Your task to perform on an android device: Go to Yahoo.com Image 0: 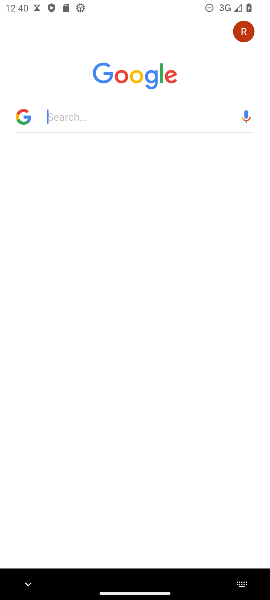
Step 0: press back button
Your task to perform on an android device: Go to Yahoo.com Image 1: 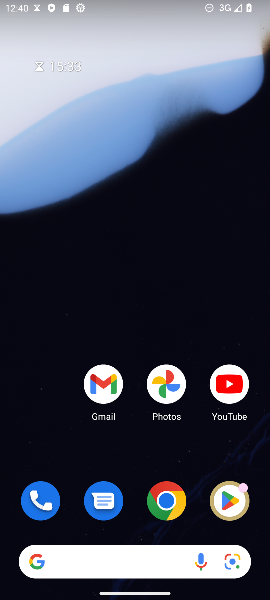
Step 1: click (169, 507)
Your task to perform on an android device: Go to Yahoo.com Image 2: 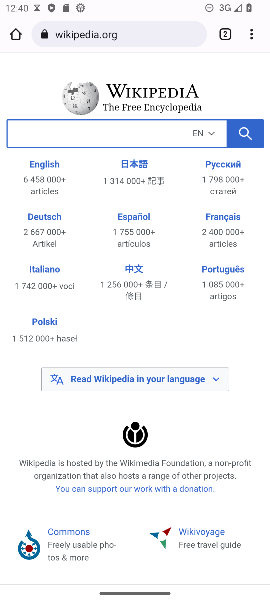
Step 2: click (99, 29)
Your task to perform on an android device: Go to Yahoo.com Image 3: 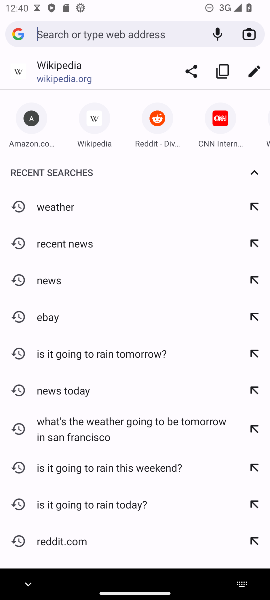
Step 3: type "www.yahoo.com"
Your task to perform on an android device: Go to Yahoo.com Image 4: 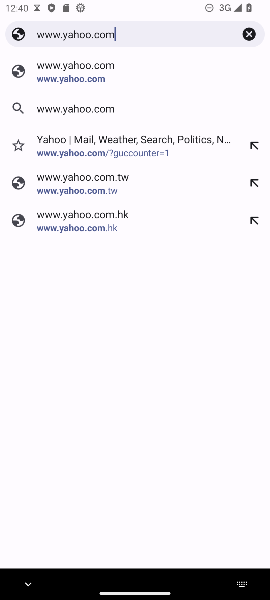
Step 4: click (83, 83)
Your task to perform on an android device: Go to Yahoo.com Image 5: 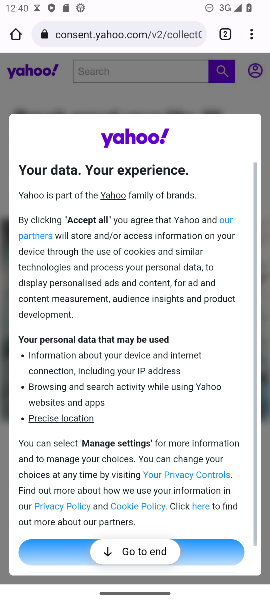
Step 5: task complete